Your task to perform on an android device: open chrome and create a bookmark for the current page Image 0: 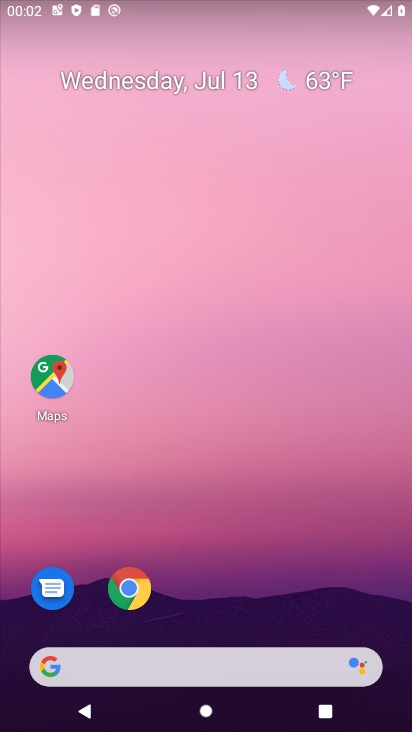
Step 0: click (129, 594)
Your task to perform on an android device: open chrome and create a bookmark for the current page Image 1: 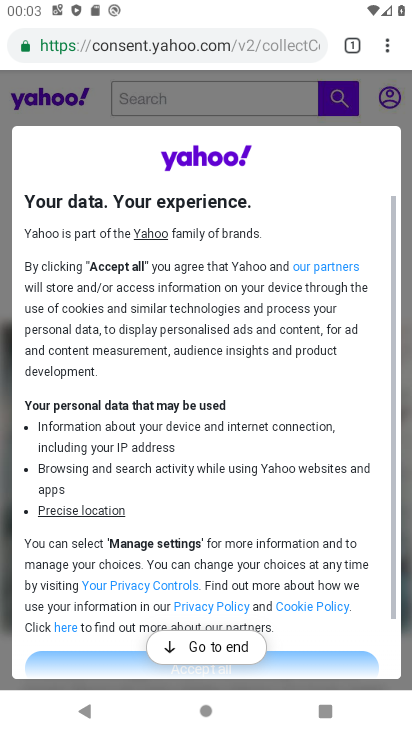
Step 1: click (387, 45)
Your task to perform on an android device: open chrome and create a bookmark for the current page Image 2: 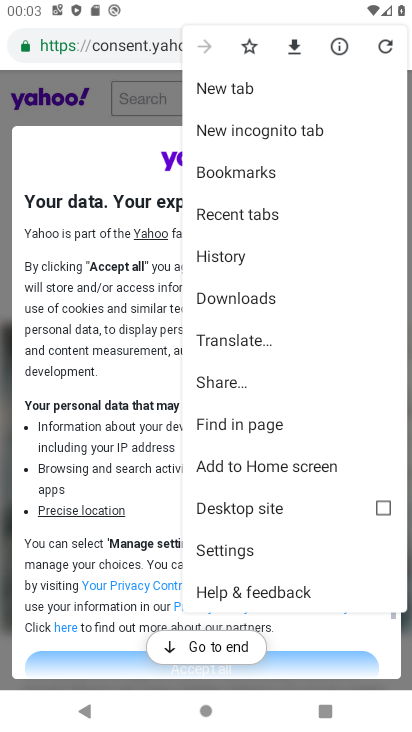
Step 2: click (245, 44)
Your task to perform on an android device: open chrome and create a bookmark for the current page Image 3: 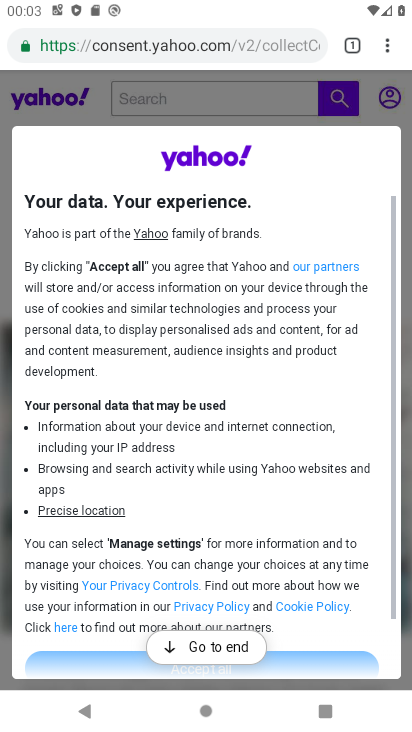
Step 3: task complete